Your task to perform on an android device: Open Maps and search for coffee Image 0: 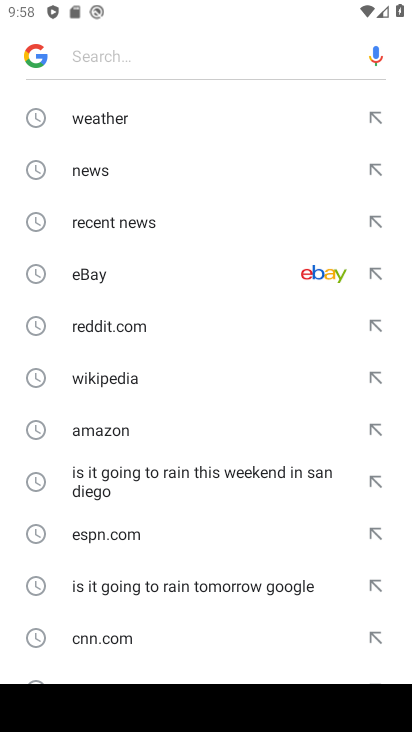
Step 0: press home button
Your task to perform on an android device: Open Maps and search for coffee Image 1: 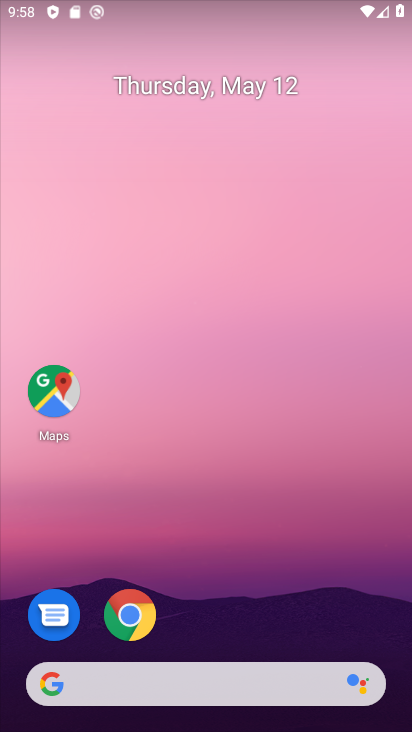
Step 1: drag from (224, 719) to (227, 187)
Your task to perform on an android device: Open Maps and search for coffee Image 2: 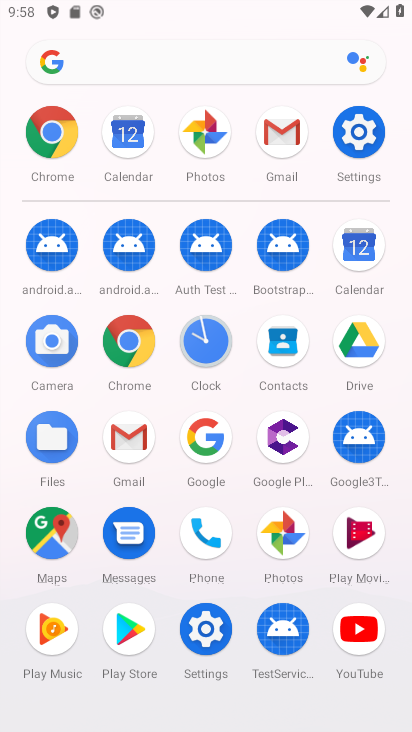
Step 2: click (45, 532)
Your task to perform on an android device: Open Maps and search for coffee Image 3: 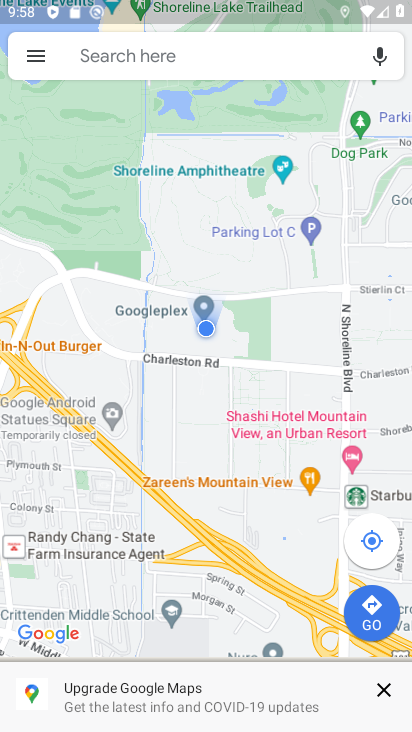
Step 3: click (138, 54)
Your task to perform on an android device: Open Maps and search for coffee Image 4: 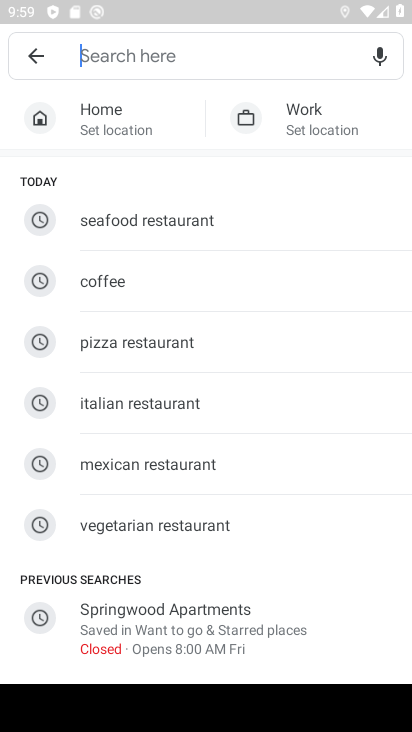
Step 4: type "coffee"
Your task to perform on an android device: Open Maps and search for coffee Image 5: 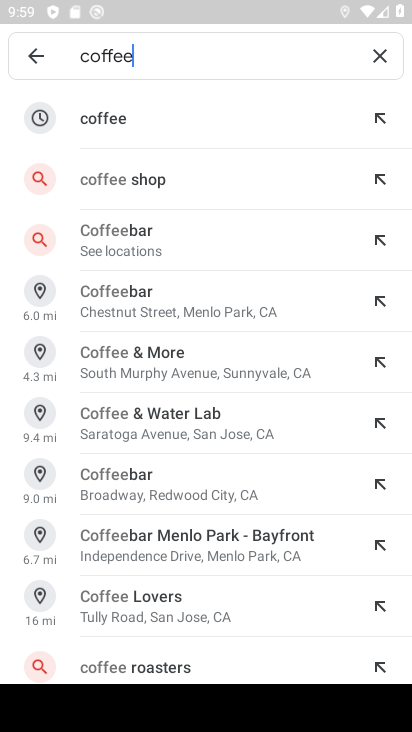
Step 5: click (111, 112)
Your task to perform on an android device: Open Maps and search for coffee Image 6: 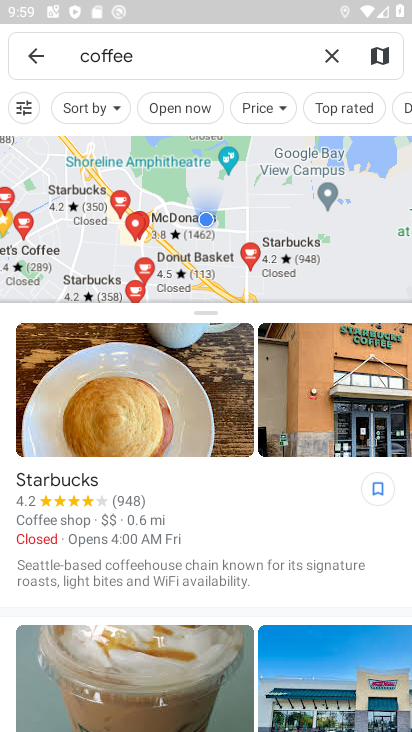
Step 6: task complete